Your task to perform on an android device: Go to Reddit.com Image 0: 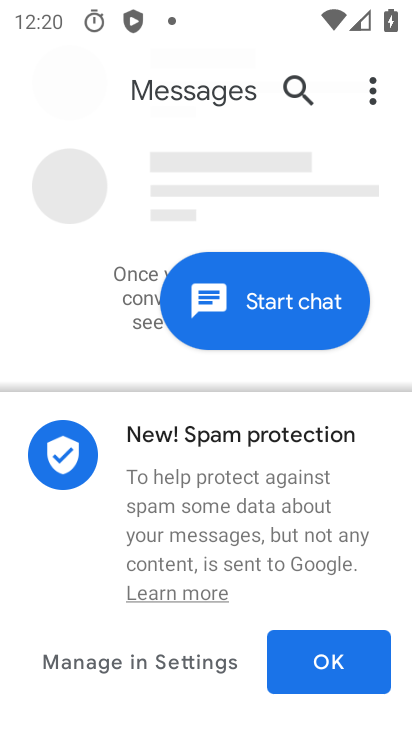
Step 0: press back button
Your task to perform on an android device: Go to Reddit.com Image 1: 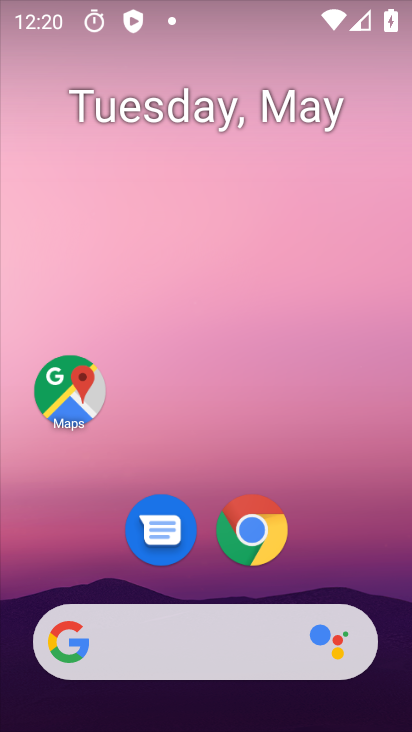
Step 1: drag from (334, 534) to (273, 22)
Your task to perform on an android device: Go to Reddit.com Image 2: 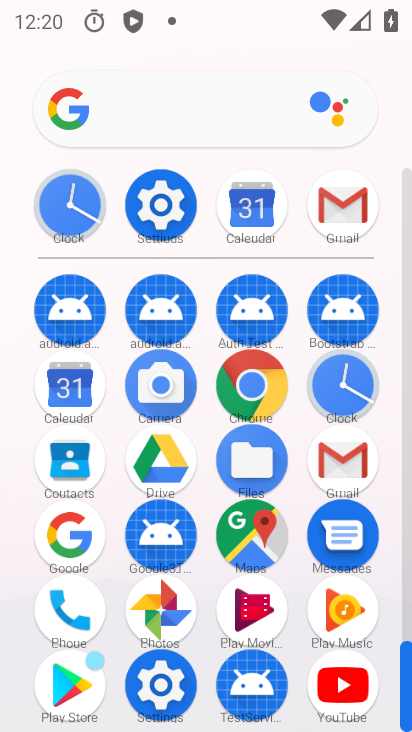
Step 2: click (250, 384)
Your task to perform on an android device: Go to Reddit.com Image 3: 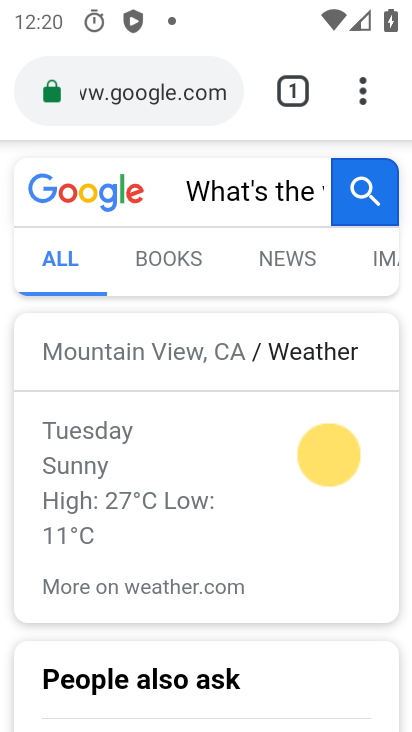
Step 3: click (175, 78)
Your task to perform on an android device: Go to Reddit.com Image 4: 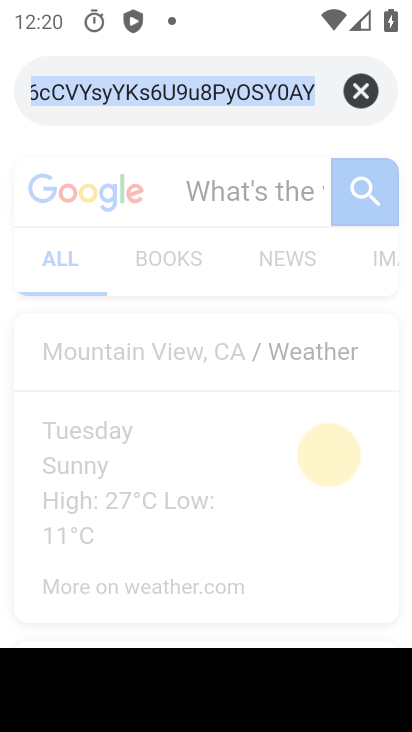
Step 4: click (355, 91)
Your task to perform on an android device: Go to Reddit.com Image 5: 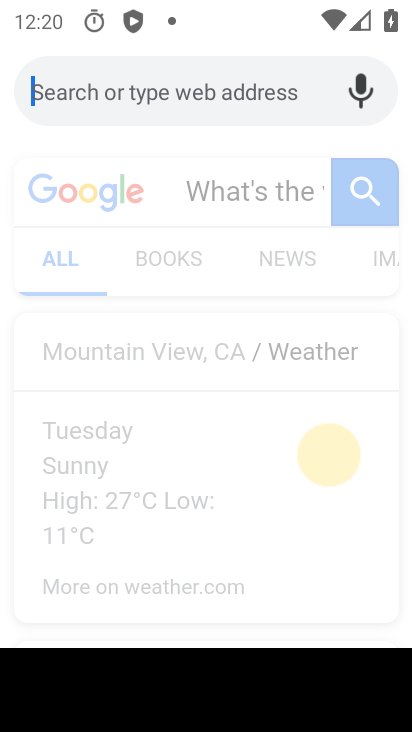
Step 5: type "Reddit.com"
Your task to perform on an android device: Go to Reddit.com Image 6: 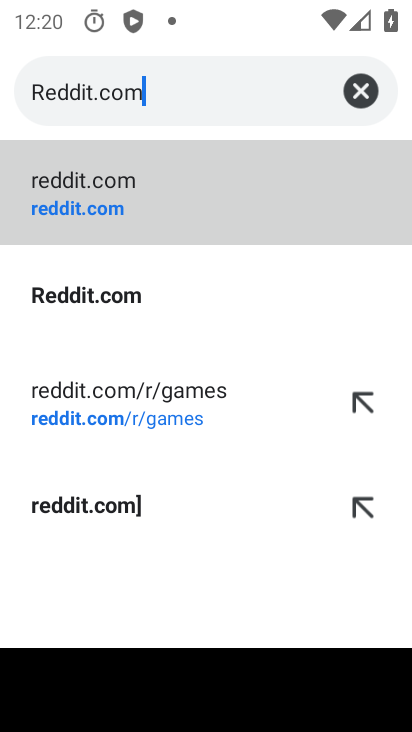
Step 6: click (179, 181)
Your task to perform on an android device: Go to Reddit.com Image 7: 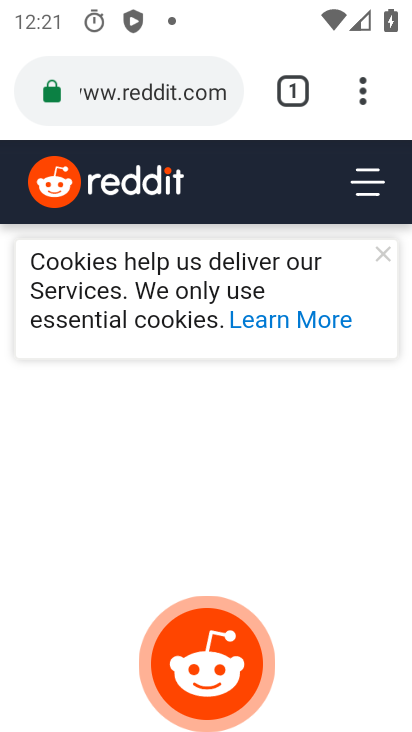
Step 7: task complete